Your task to perform on an android device: Is it going to rain this weekend? Image 0: 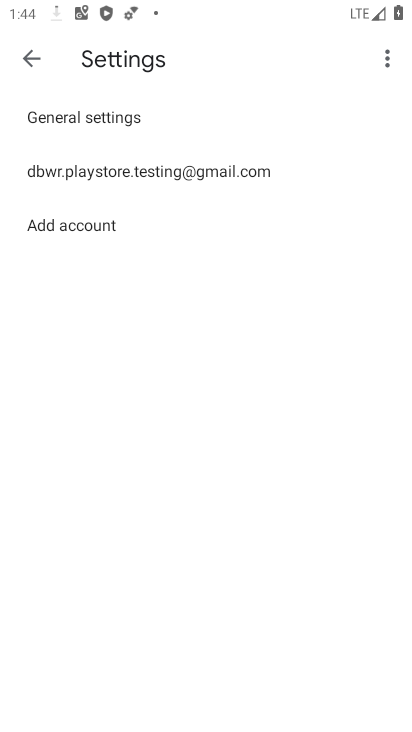
Step 0: press home button
Your task to perform on an android device: Is it going to rain this weekend? Image 1: 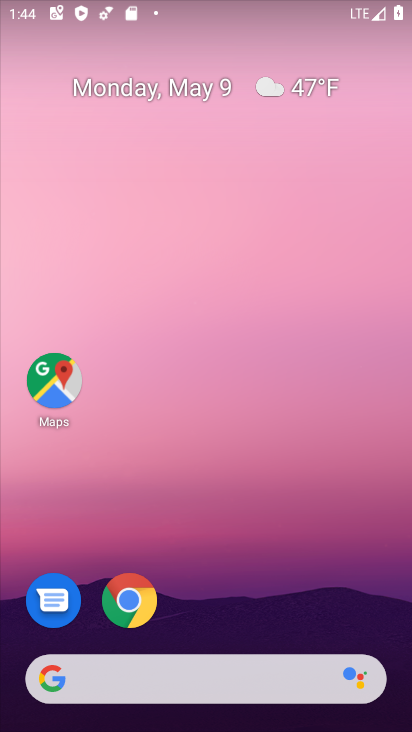
Step 1: click (301, 86)
Your task to perform on an android device: Is it going to rain this weekend? Image 2: 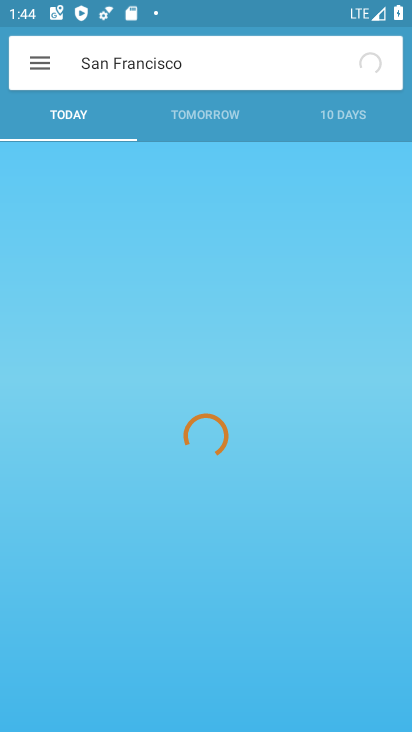
Step 2: click (350, 120)
Your task to perform on an android device: Is it going to rain this weekend? Image 3: 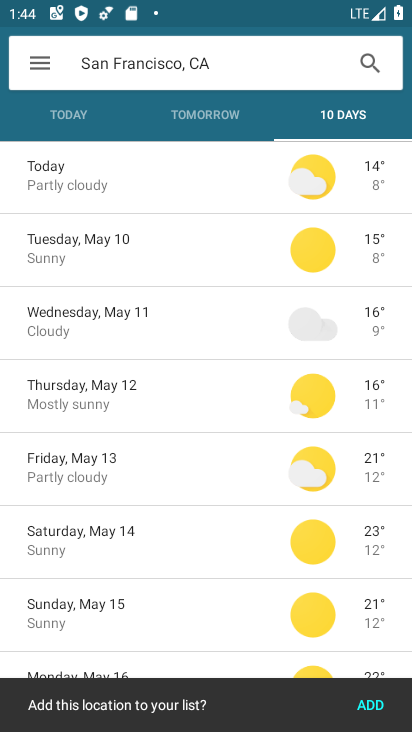
Step 3: task complete